Your task to perform on an android device: Open internet settings Image 0: 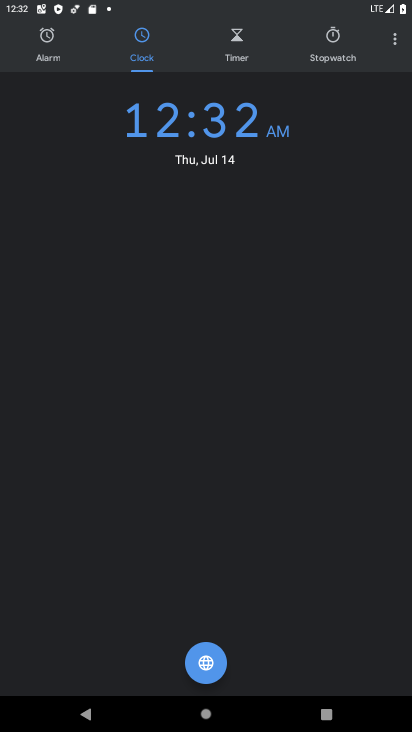
Step 0: press home button
Your task to perform on an android device: Open internet settings Image 1: 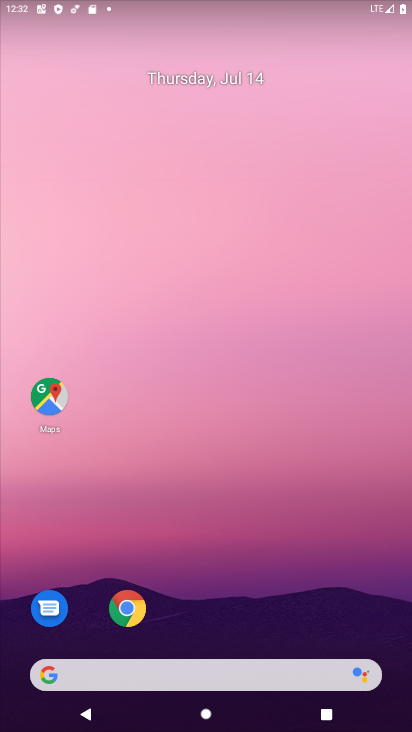
Step 1: drag from (0, 704) to (266, 64)
Your task to perform on an android device: Open internet settings Image 2: 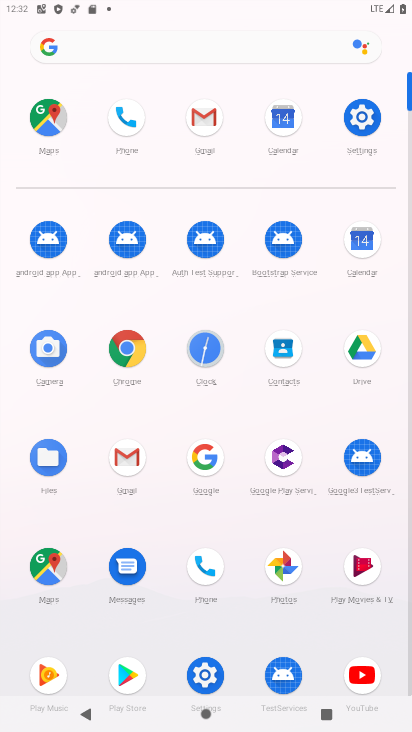
Step 2: click (356, 114)
Your task to perform on an android device: Open internet settings Image 3: 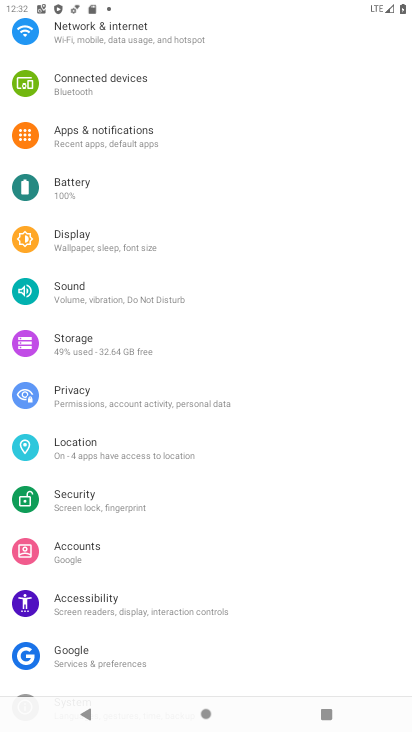
Step 3: click (126, 40)
Your task to perform on an android device: Open internet settings Image 4: 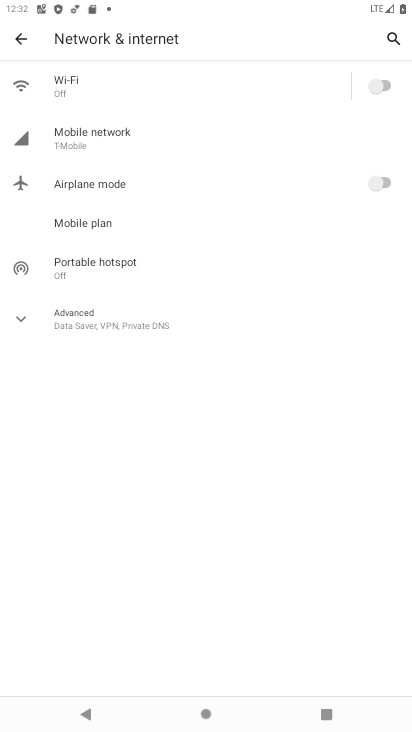
Step 4: click (141, 143)
Your task to perform on an android device: Open internet settings Image 5: 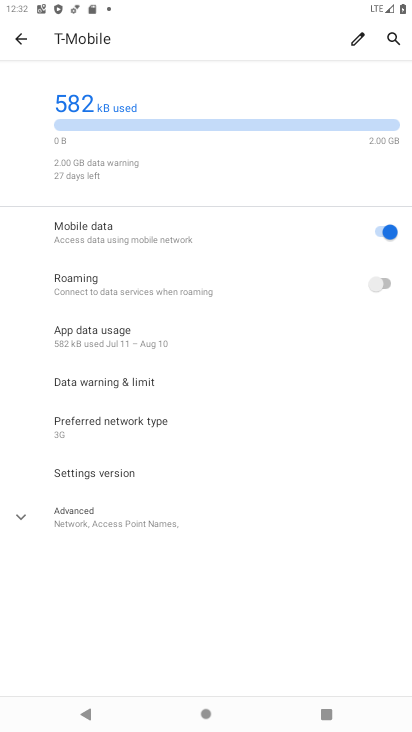
Step 5: task complete